Your task to perform on an android device: Open calendar and show me the fourth week of next month Image 0: 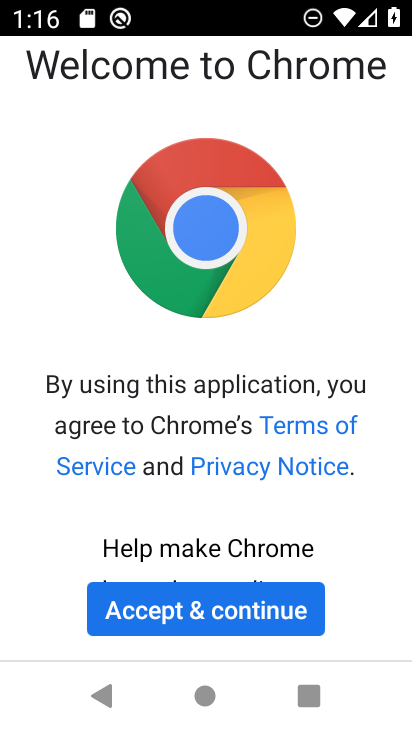
Step 0: click (289, 623)
Your task to perform on an android device: Open calendar and show me the fourth week of next month Image 1: 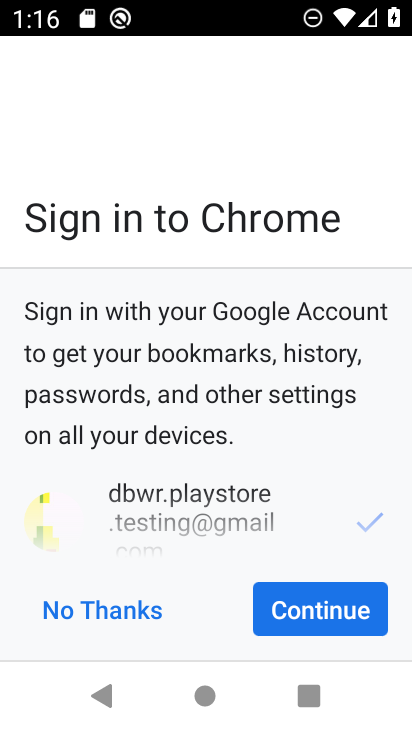
Step 1: click (287, 625)
Your task to perform on an android device: Open calendar and show me the fourth week of next month Image 2: 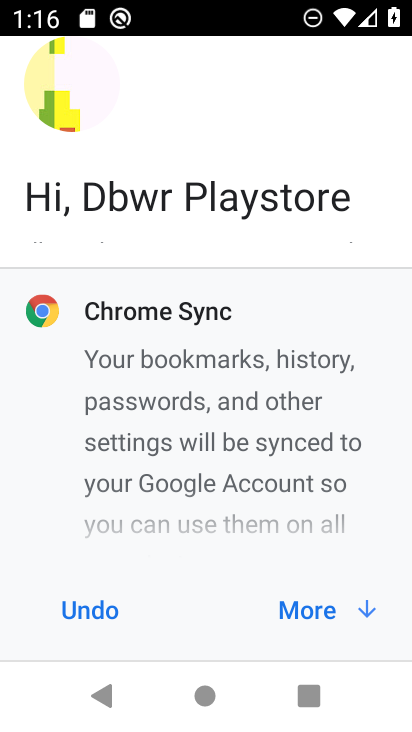
Step 2: click (339, 598)
Your task to perform on an android device: Open calendar and show me the fourth week of next month Image 3: 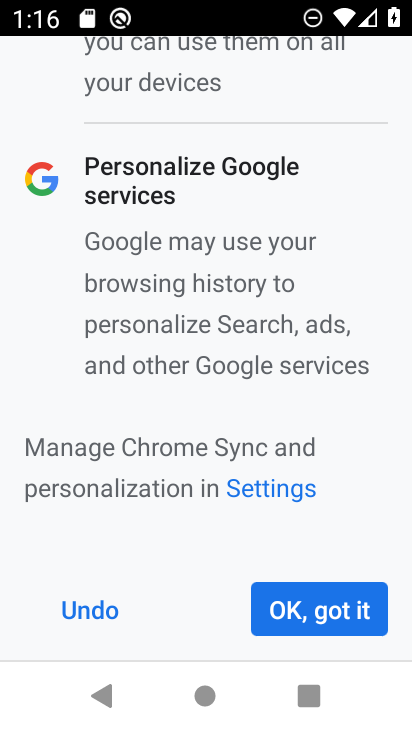
Step 3: click (339, 598)
Your task to perform on an android device: Open calendar and show me the fourth week of next month Image 4: 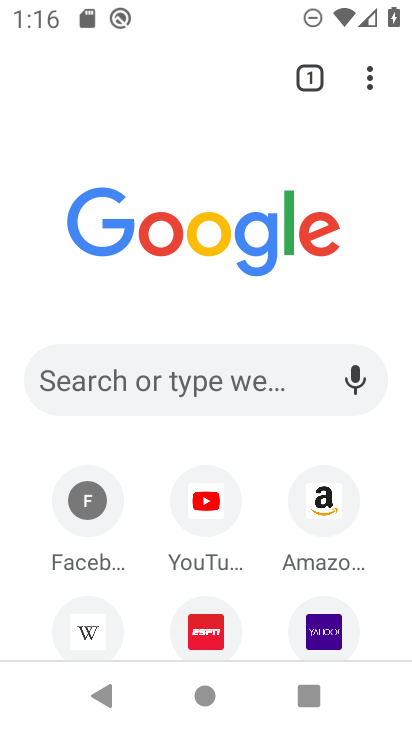
Step 4: press home button
Your task to perform on an android device: Open calendar and show me the fourth week of next month Image 5: 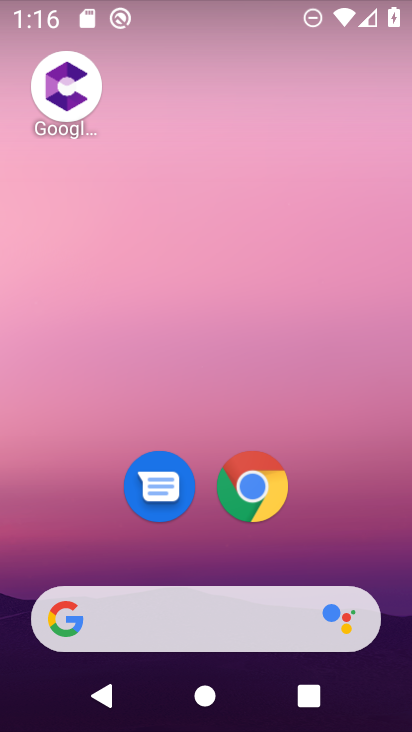
Step 5: drag from (329, 641) to (293, 283)
Your task to perform on an android device: Open calendar and show me the fourth week of next month Image 6: 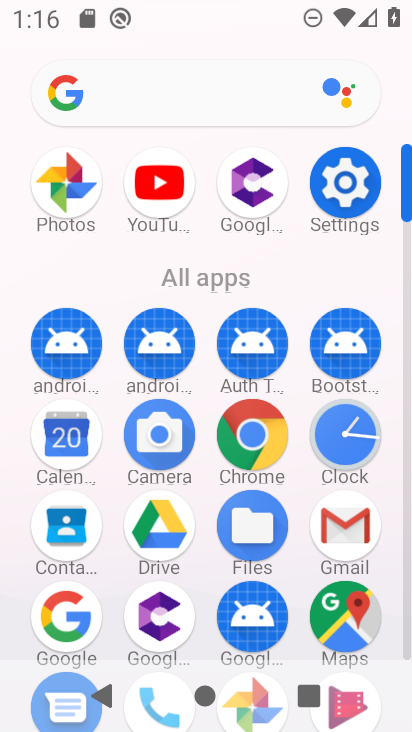
Step 6: click (65, 453)
Your task to perform on an android device: Open calendar and show me the fourth week of next month Image 7: 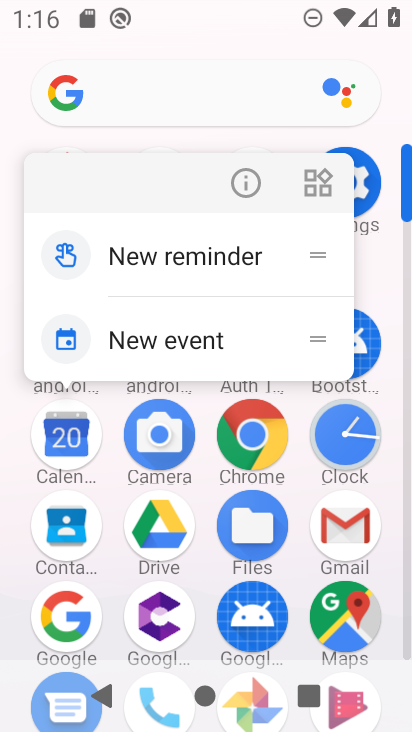
Step 7: click (66, 442)
Your task to perform on an android device: Open calendar and show me the fourth week of next month Image 8: 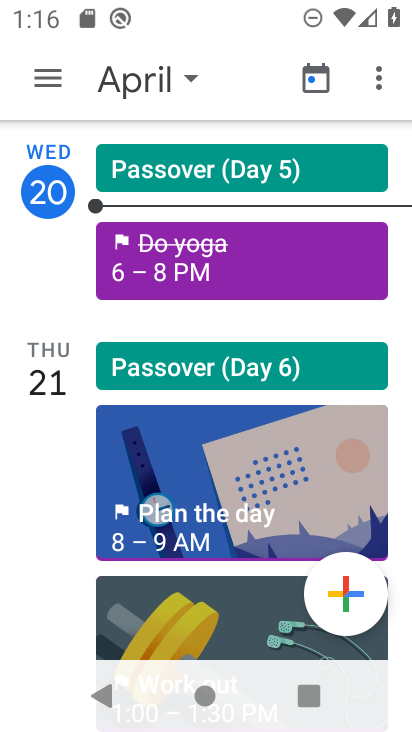
Step 8: click (37, 103)
Your task to perform on an android device: Open calendar and show me the fourth week of next month Image 9: 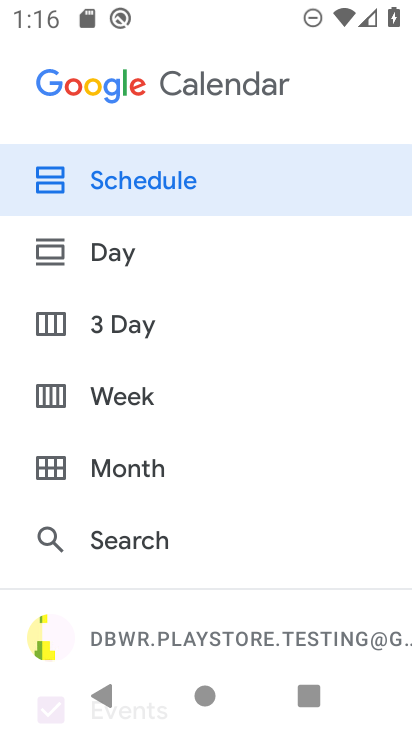
Step 9: click (129, 475)
Your task to perform on an android device: Open calendar and show me the fourth week of next month Image 10: 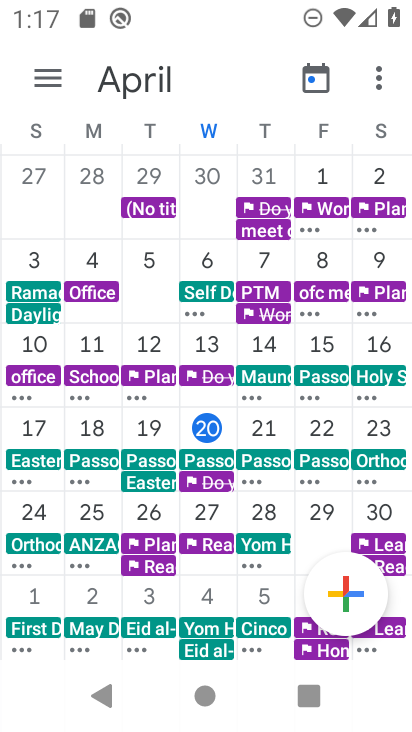
Step 10: drag from (336, 379) to (1, 423)
Your task to perform on an android device: Open calendar and show me the fourth week of next month Image 11: 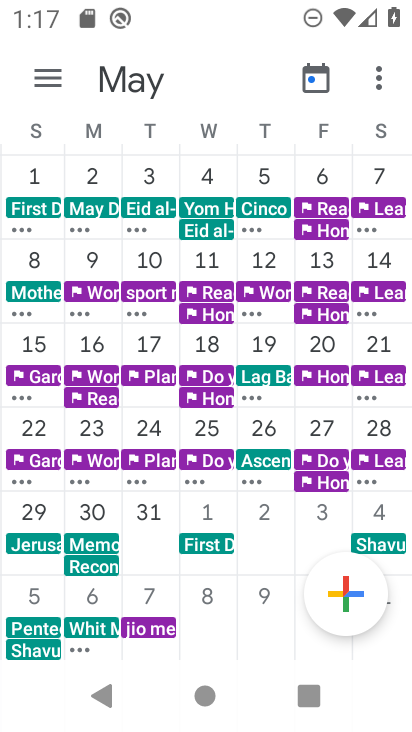
Step 11: click (104, 447)
Your task to perform on an android device: Open calendar and show me the fourth week of next month Image 12: 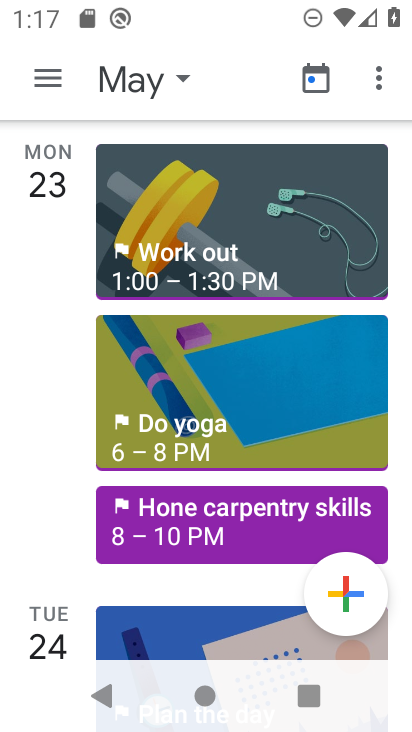
Step 12: task complete